Your task to perform on an android device: turn on the 12-hour format for clock Image 0: 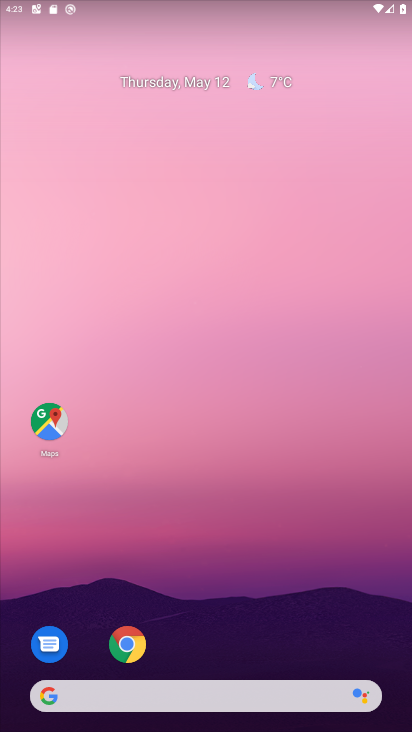
Step 0: drag from (227, 661) to (287, 158)
Your task to perform on an android device: turn on the 12-hour format for clock Image 1: 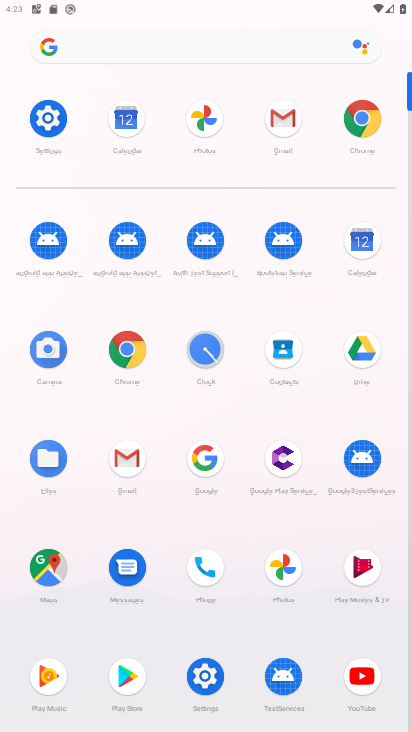
Step 1: click (197, 347)
Your task to perform on an android device: turn on the 12-hour format for clock Image 2: 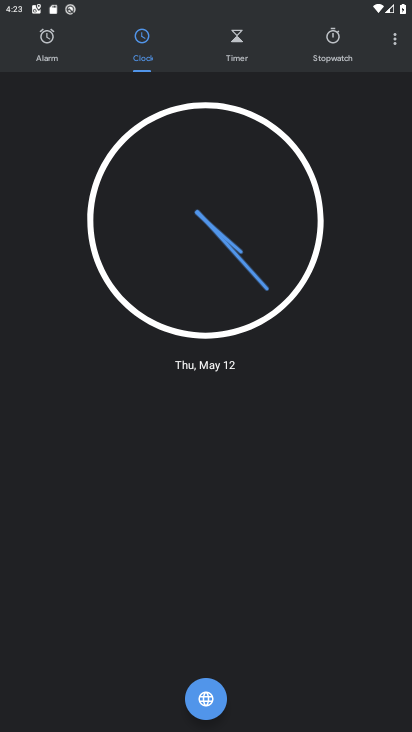
Step 2: click (379, 41)
Your task to perform on an android device: turn on the 12-hour format for clock Image 3: 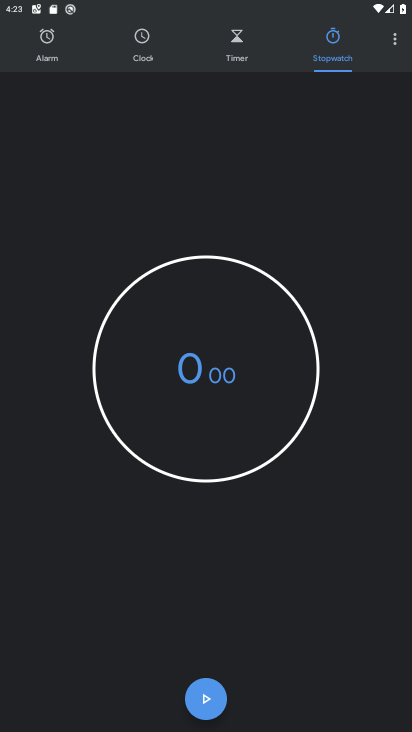
Step 3: click (387, 38)
Your task to perform on an android device: turn on the 12-hour format for clock Image 4: 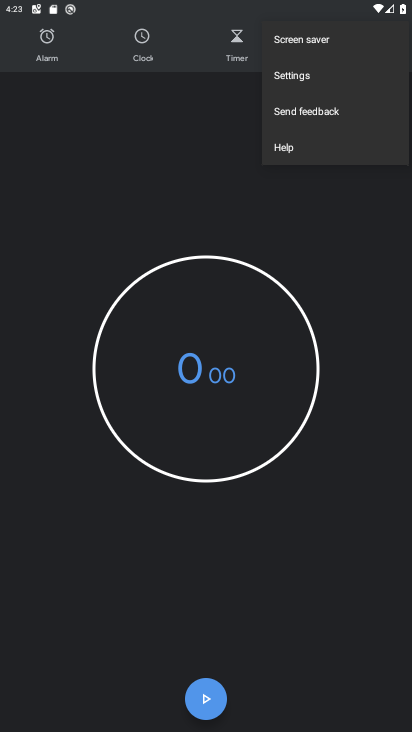
Step 4: click (313, 72)
Your task to perform on an android device: turn on the 12-hour format for clock Image 5: 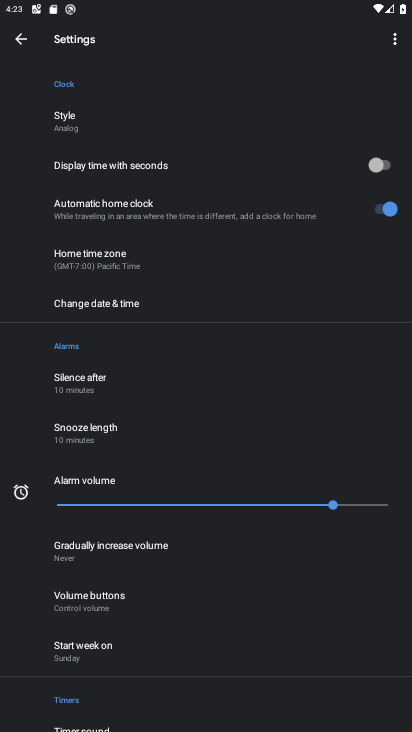
Step 5: drag from (145, 653) to (138, 482)
Your task to perform on an android device: turn on the 12-hour format for clock Image 6: 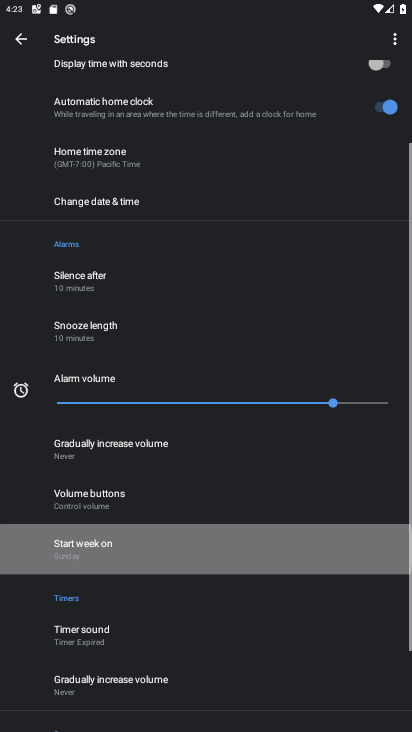
Step 6: drag from (173, 281) to (185, 115)
Your task to perform on an android device: turn on the 12-hour format for clock Image 7: 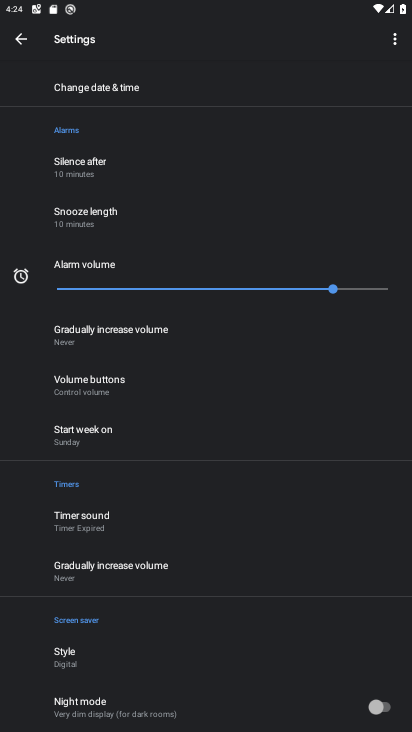
Step 7: click (155, 90)
Your task to perform on an android device: turn on the 12-hour format for clock Image 8: 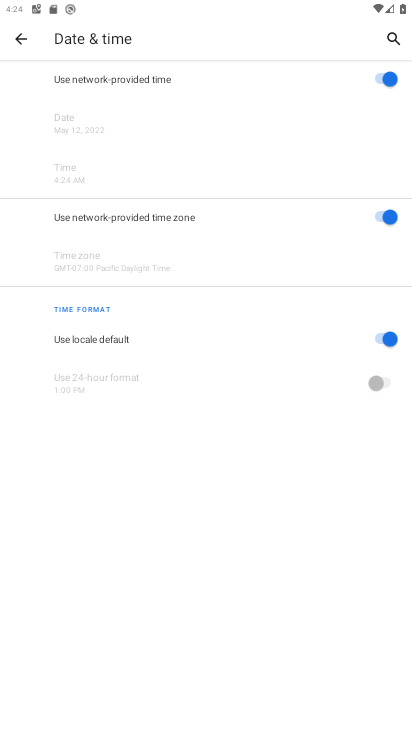
Step 8: task complete